Your task to perform on an android device: Go to Google maps Image 0: 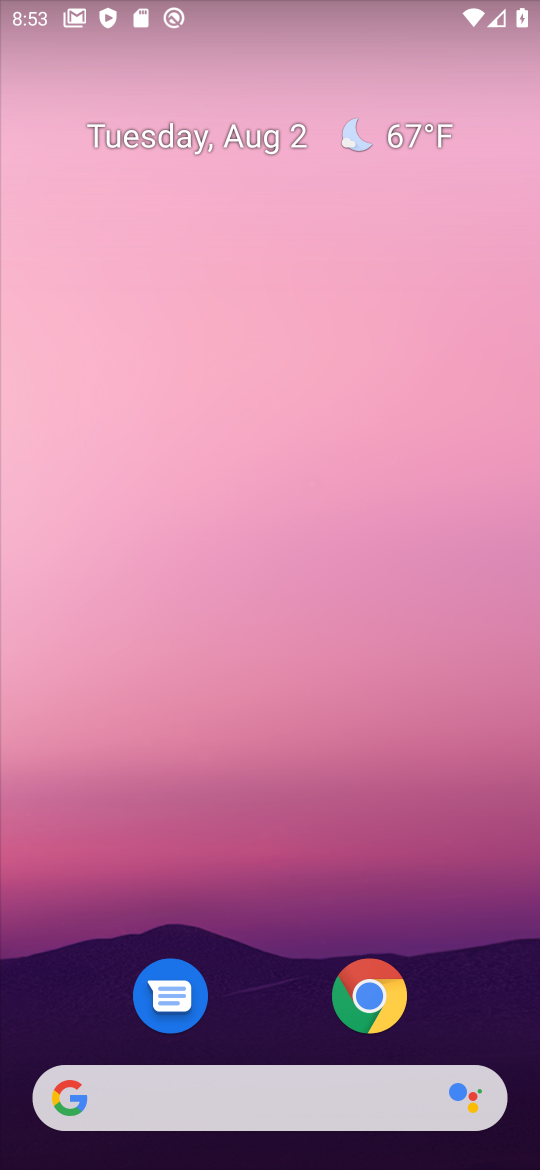
Step 0: drag from (284, 1019) to (308, 72)
Your task to perform on an android device: Go to Google maps Image 1: 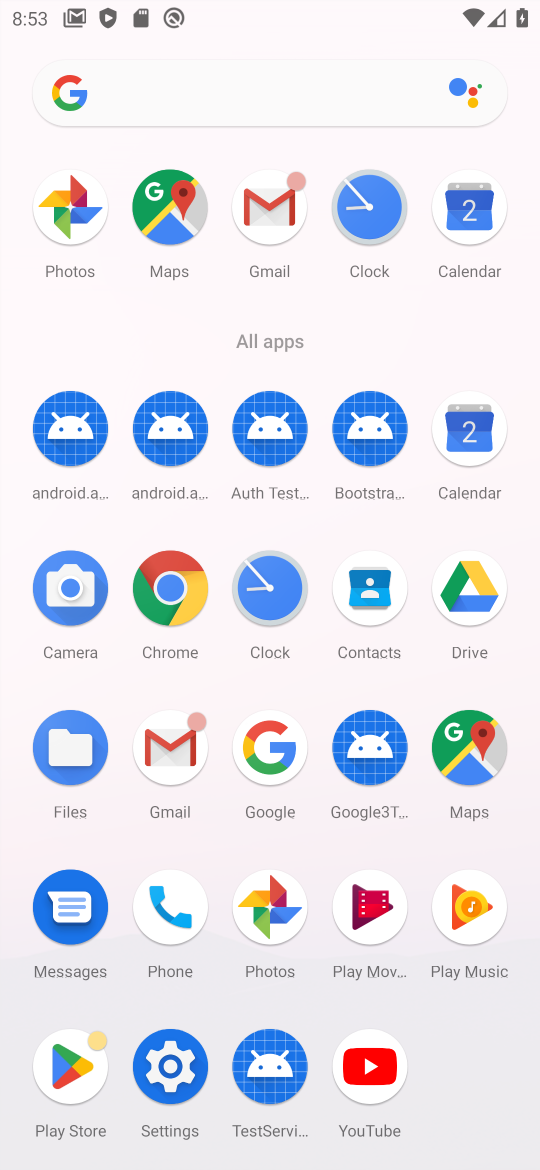
Step 1: click (468, 742)
Your task to perform on an android device: Go to Google maps Image 2: 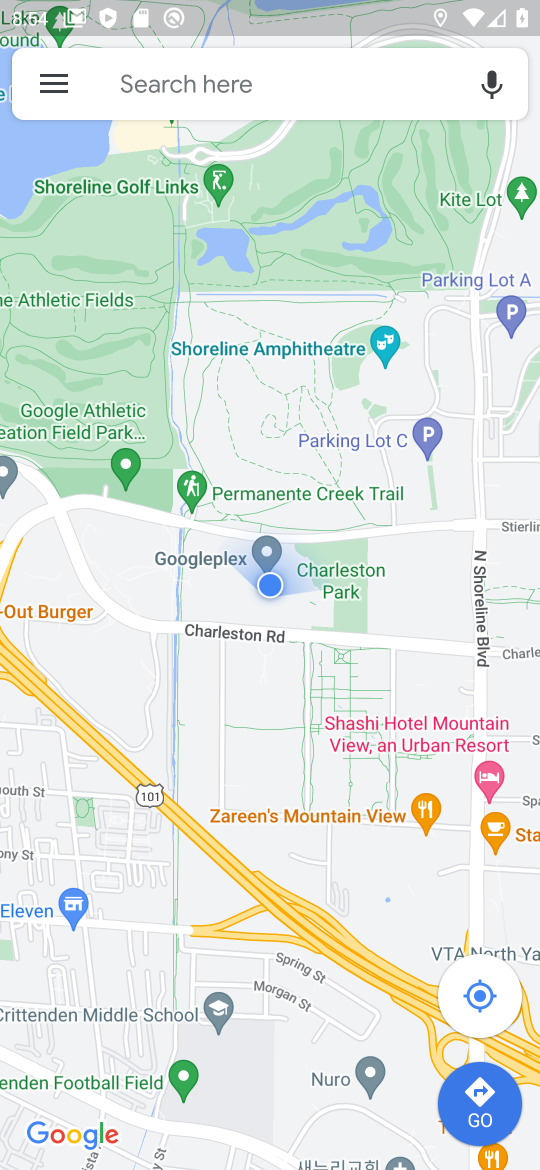
Step 2: task complete